Your task to perform on an android device: See recent photos Image 0: 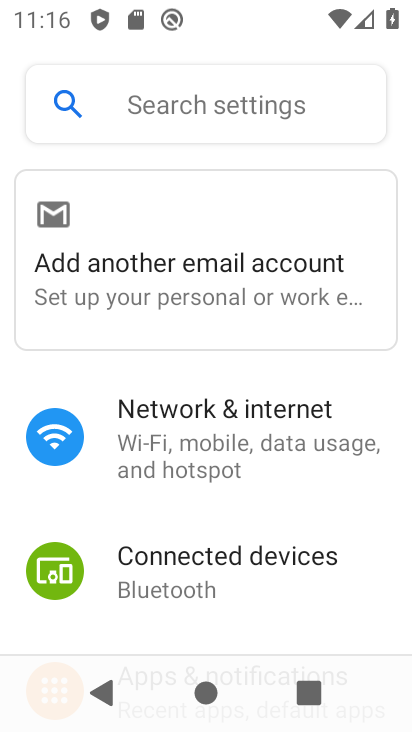
Step 0: press home button
Your task to perform on an android device: See recent photos Image 1: 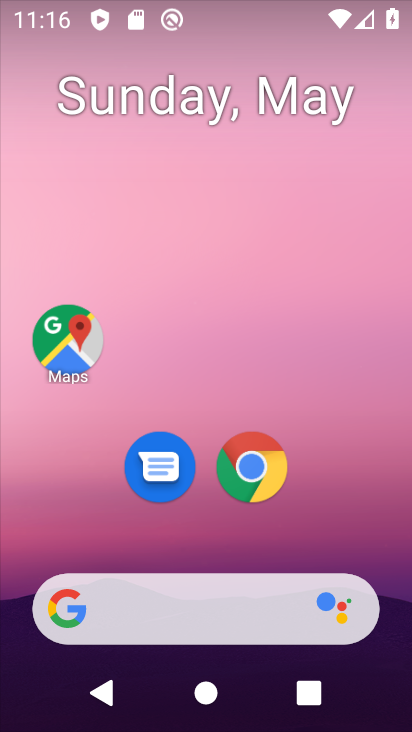
Step 1: drag from (181, 518) to (190, 171)
Your task to perform on an android device: See recent photos Image 2: 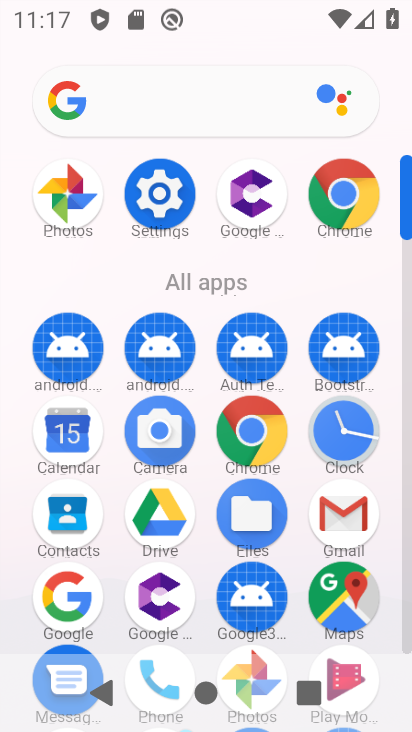
Step 2: drag from (197, 572) to (230, 311)
Your task to perform on an android device: See recent photos Image 3: 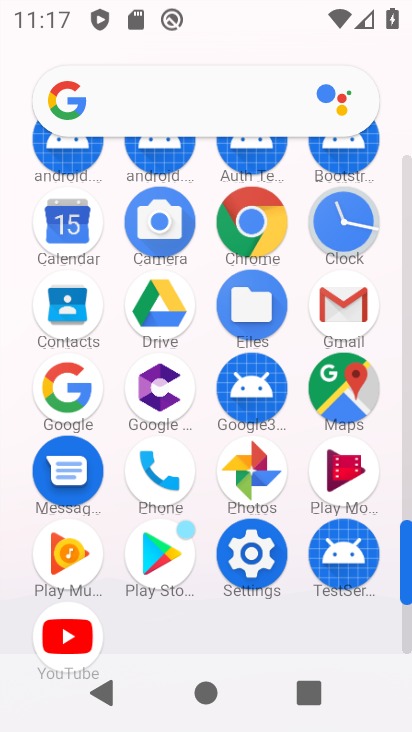
Step 3: click (254, 469)
Your task to perform on an android device: See recent photos Image 4: 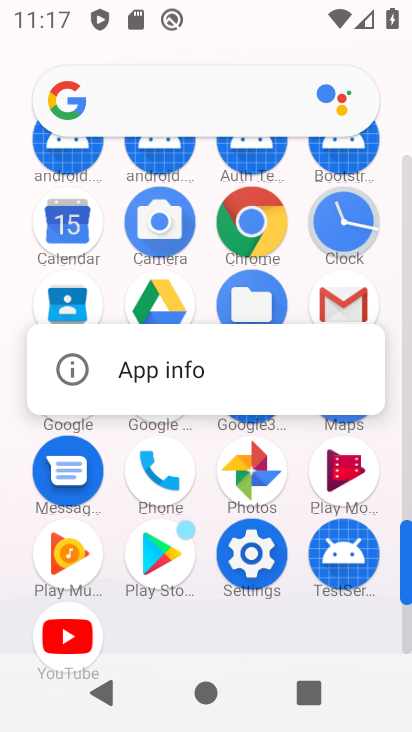
Step 4: click (250, 474)
Your task to perform on an android device: See recent photos Image 5: 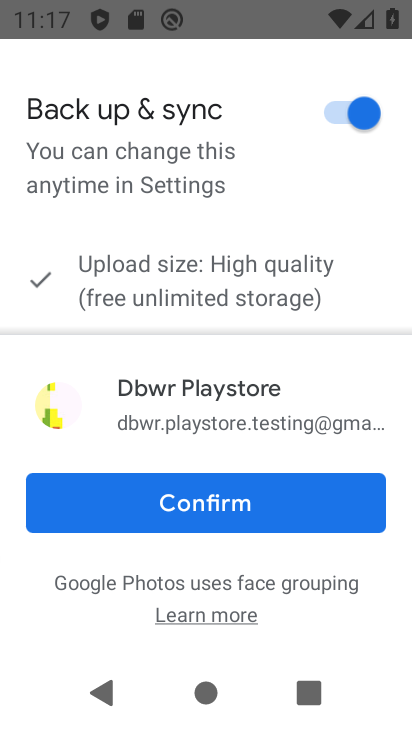
Step 5: click (227, 519)
Your task to perform on an android device: See recent photos Image 6: 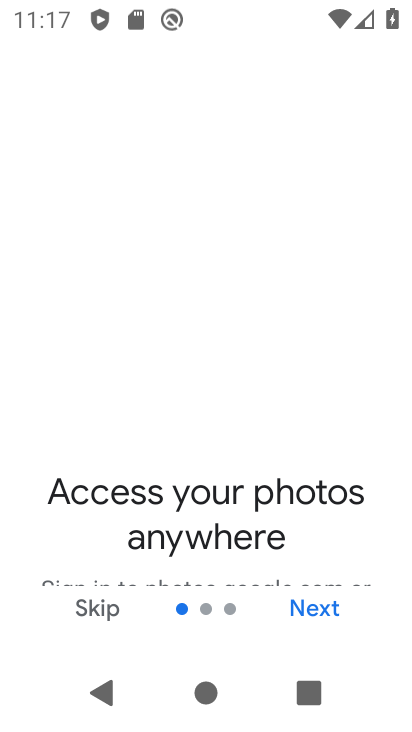
Step 6: click (312, 610)
Your task to perform on an android device: See recent photos Image 7: 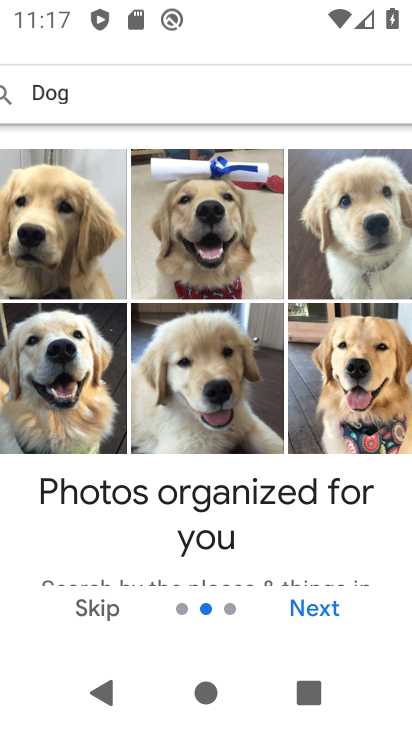
Step 7: click (312, 607)
Your task to perform on an android device: See recent photos Image 8: 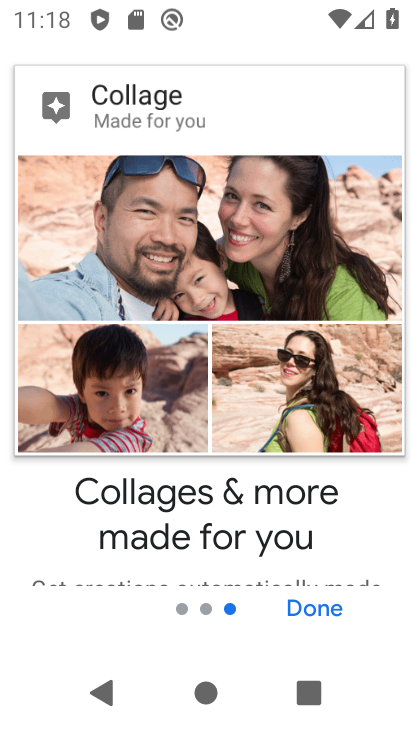
Step 8: click (295, 602)
Your task to perform on an android device: See recent photos Image 9: 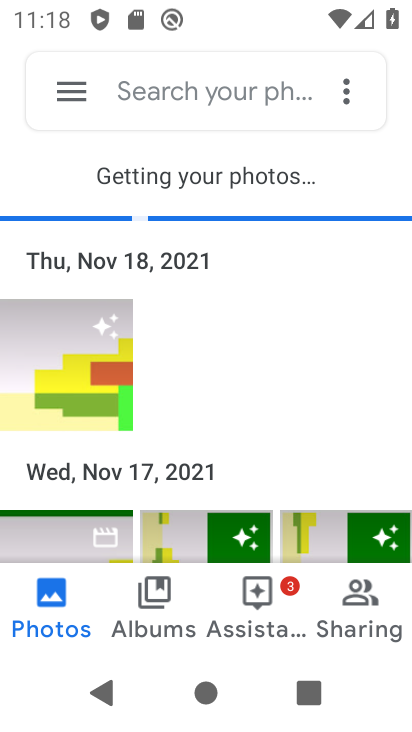
Step 9: task complete